Your task to perform on an android device: Show me the top rated dinnerware on Crate & Barrel Image 0: 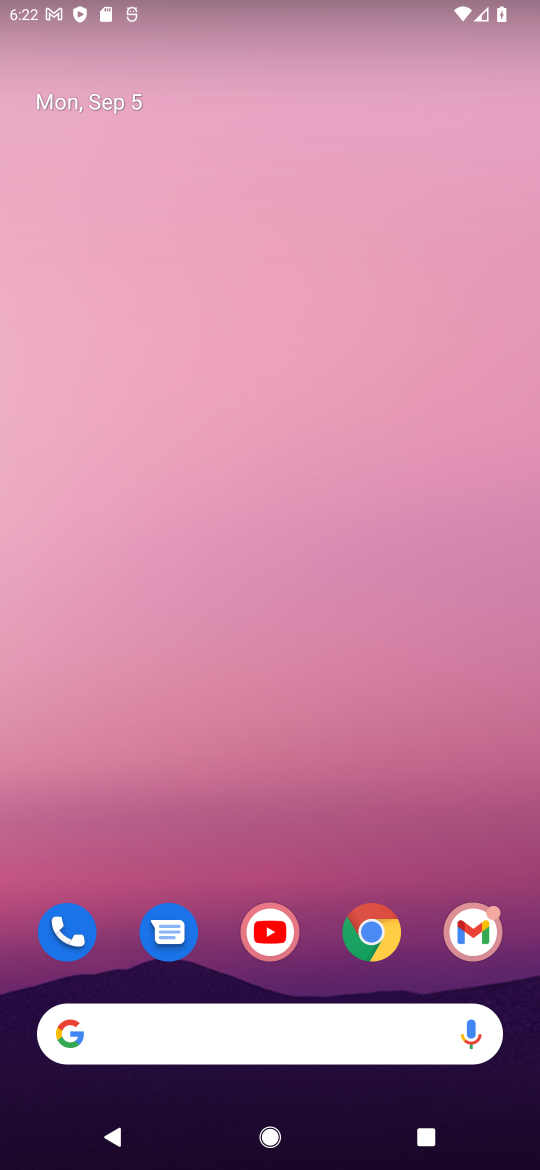
Step 0: drag from (276, 1004) to (253, 120)
Your task to perform on an android device: Show me the top rated dinnerware on Crate & Barrel Image 1: 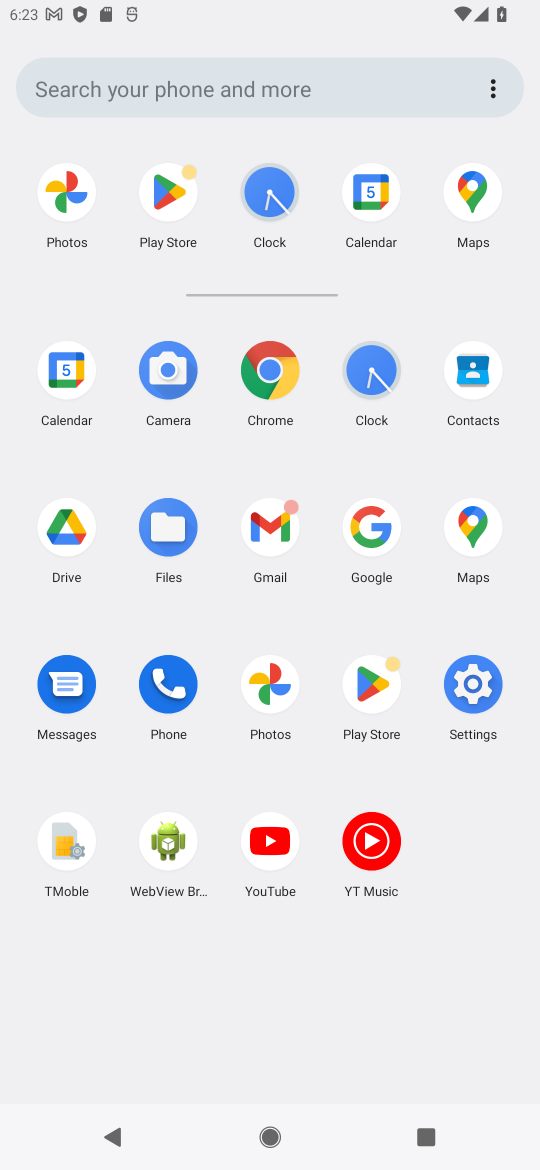
Step 1: click (373, 531)
Your task to perform on an android device: Show me the top rated dinnerware on Crate & Barrel Image 2: 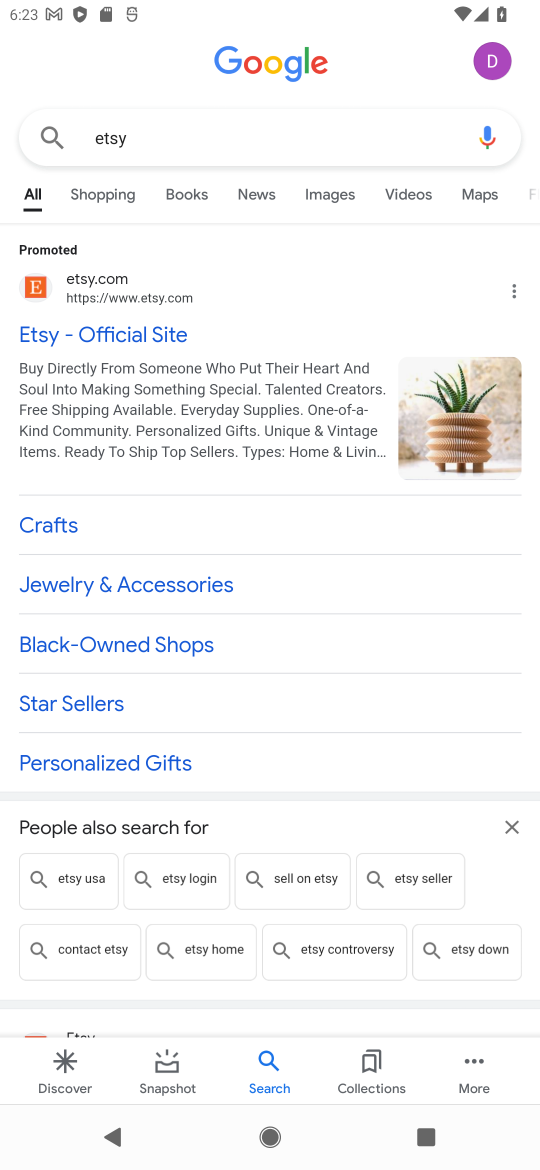
Step 2: click (210, 142)
Your task to perform on an android device: Show me the top rated dinnerware on Crate & Barrel Image 3: 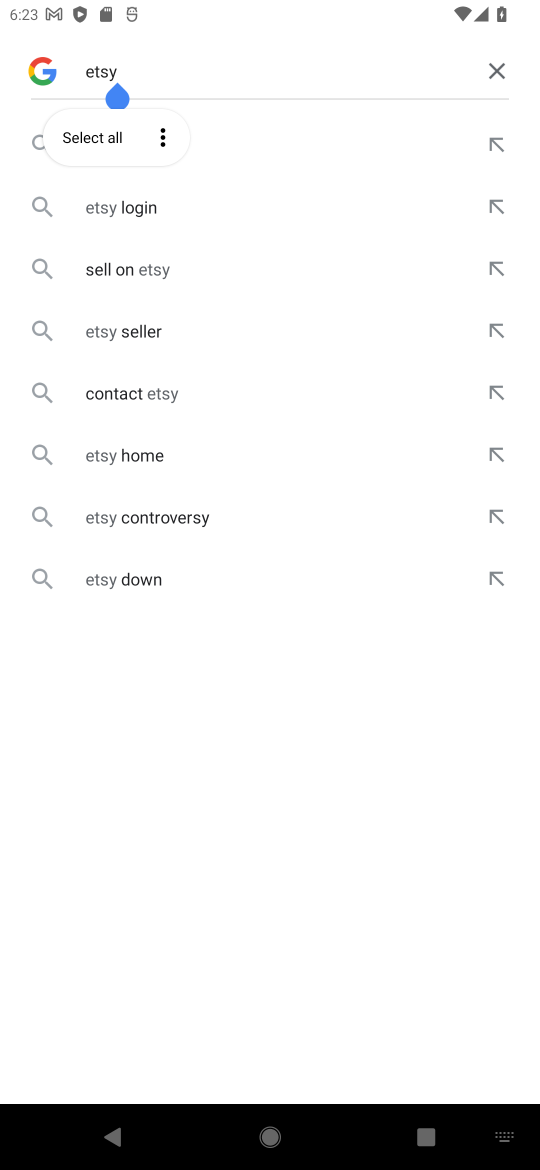
Step 3: click (499, 59)
Your task to perform on an android device: Show me the top rated dinnerware on Crate & Barrel Image 4: 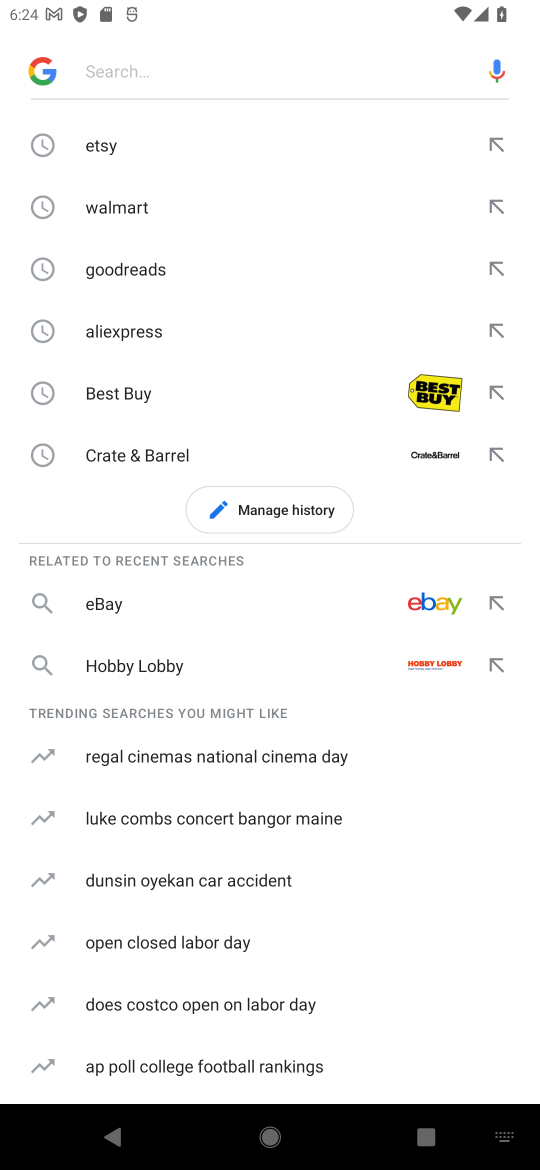
Step 4: type "Crate & Barrel"
Your task to perform on an android device: Show me the top rated dinnerware on Crate & Barrel Image 5: 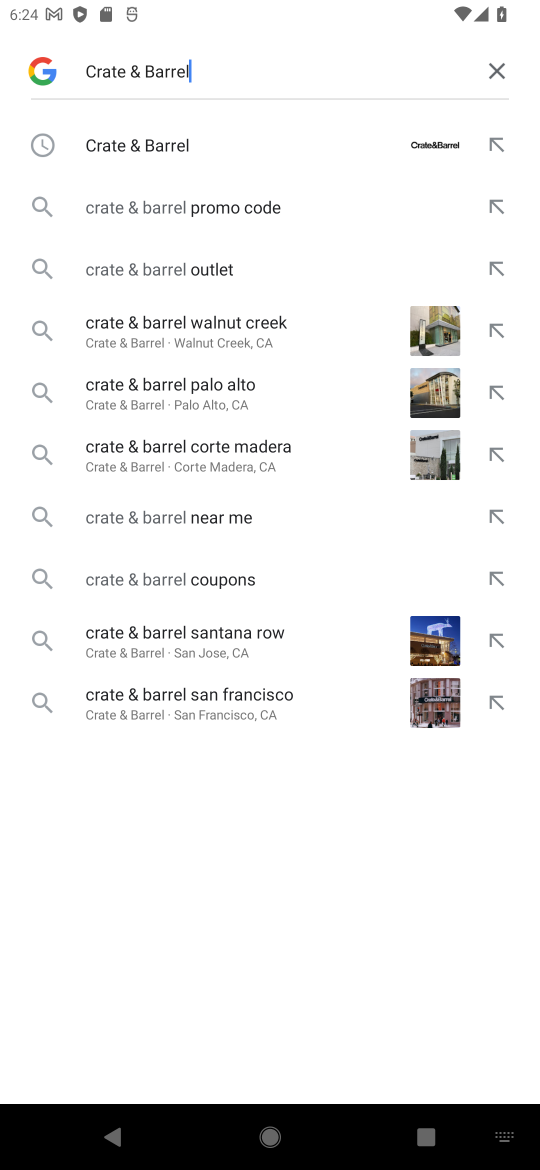
Step 5: click (145, 143)
Your task to perform on an android device: Show me the top rated dinnerware on Crate & Barrel Image 6: 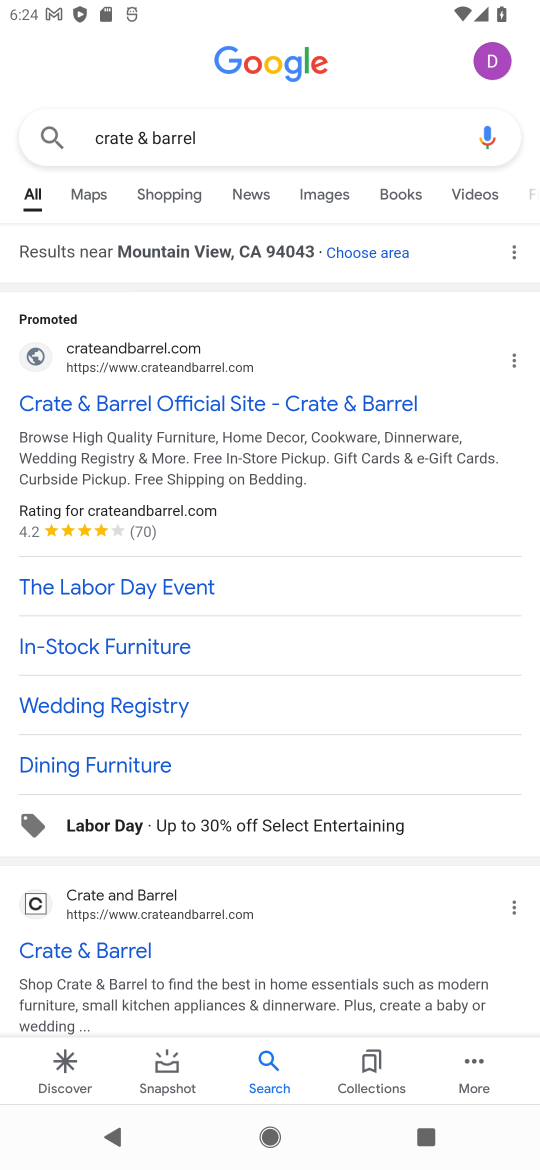
Step 6: click (76, 951)
Your task to perform on an android device: Show me the top rated dinnerware on Crate & Barrel Image 7: 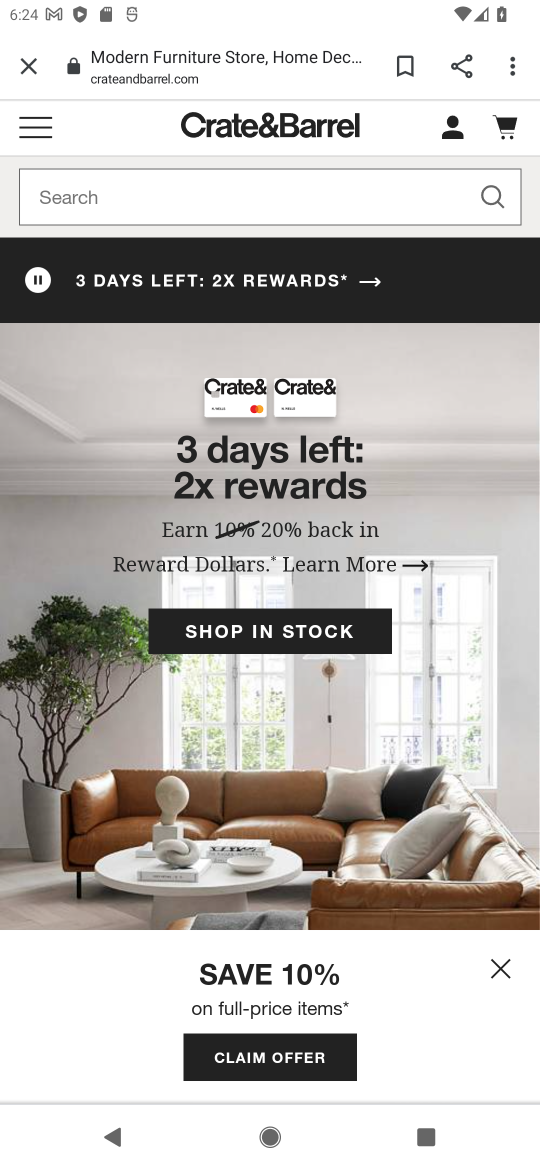
Step 7: click (512, 73)
Your task to perform on an android device: Show me the top rated dinnerware on Crate & Barrel Image 8: 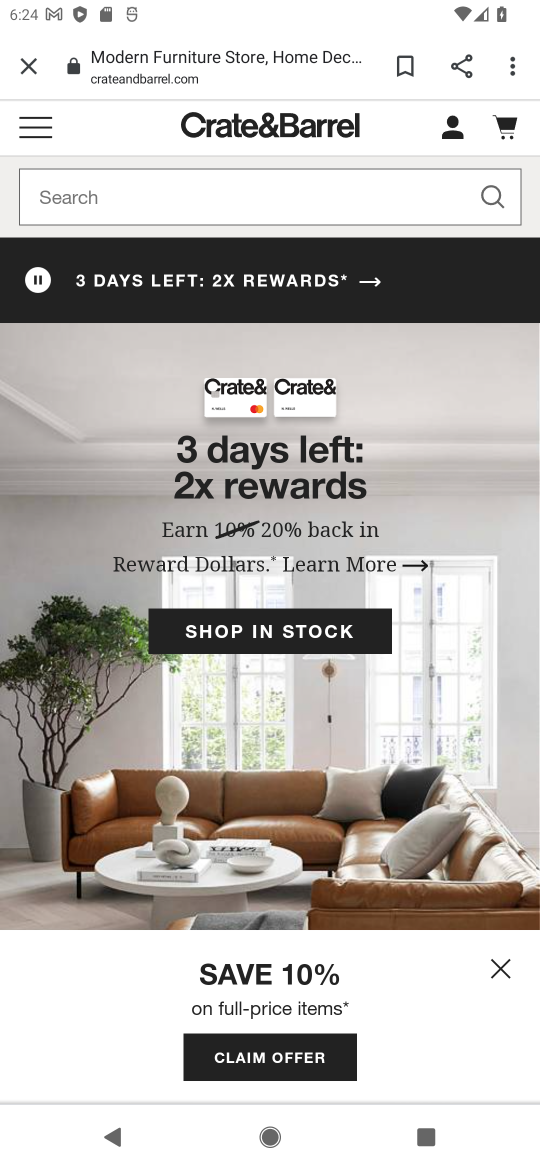
Step 8: click (183, 195)
Your task to perform on an android device: Show me the top rated dinnerware on Crate & Barrel Image 9: 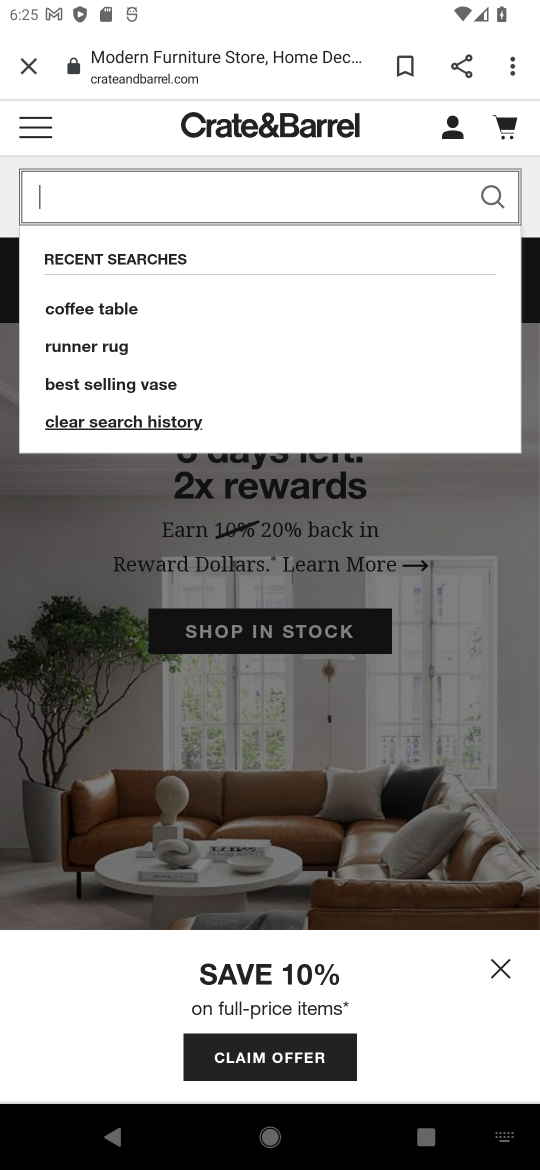
Step 9: click (191, 191)
Your task to perform on an android device: Show me the top rated dinnerware on Crate & Barrel Image 10: 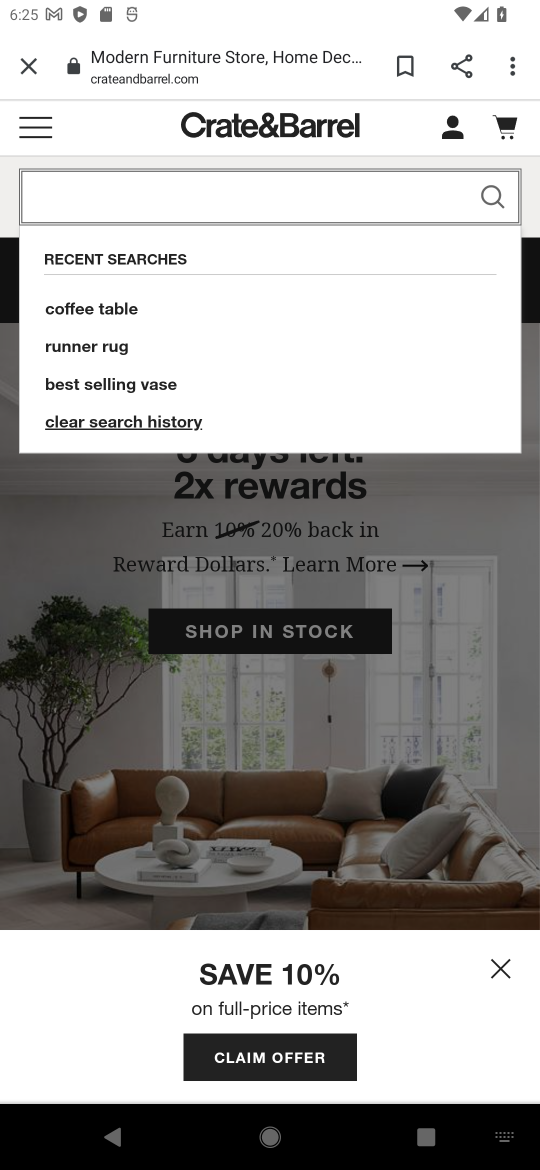
Step 10: type "dinnerware"
Your task to perform on an android device: Show me the top rated dinnerware on Crate & Barrel Image 11: 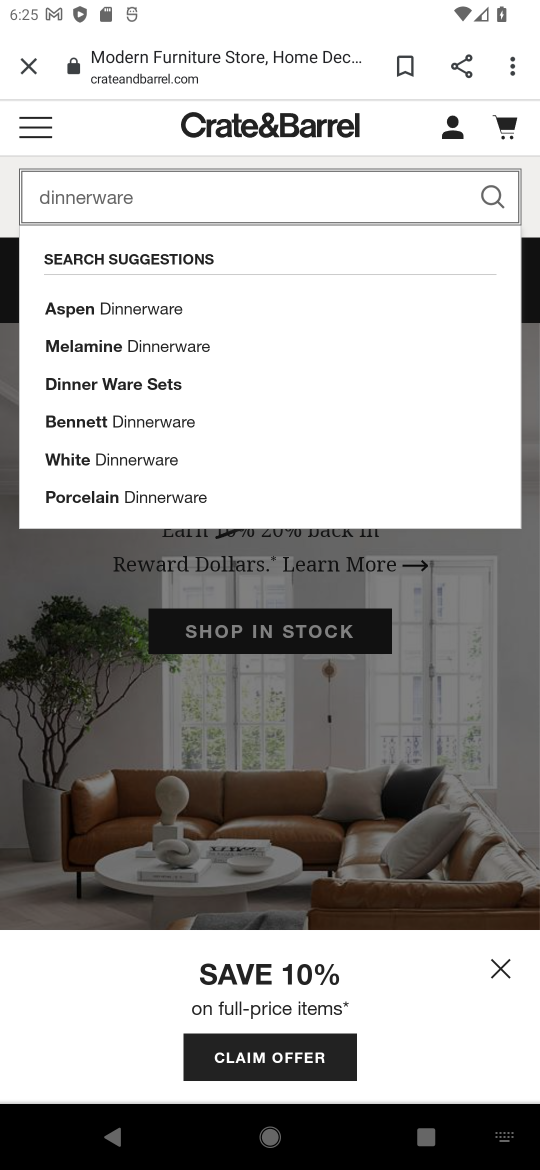
Step 11: click (490, 194)
Your task to perform on an android device: Show me the top rated dinnerware on Crate & Barrel Image 12: 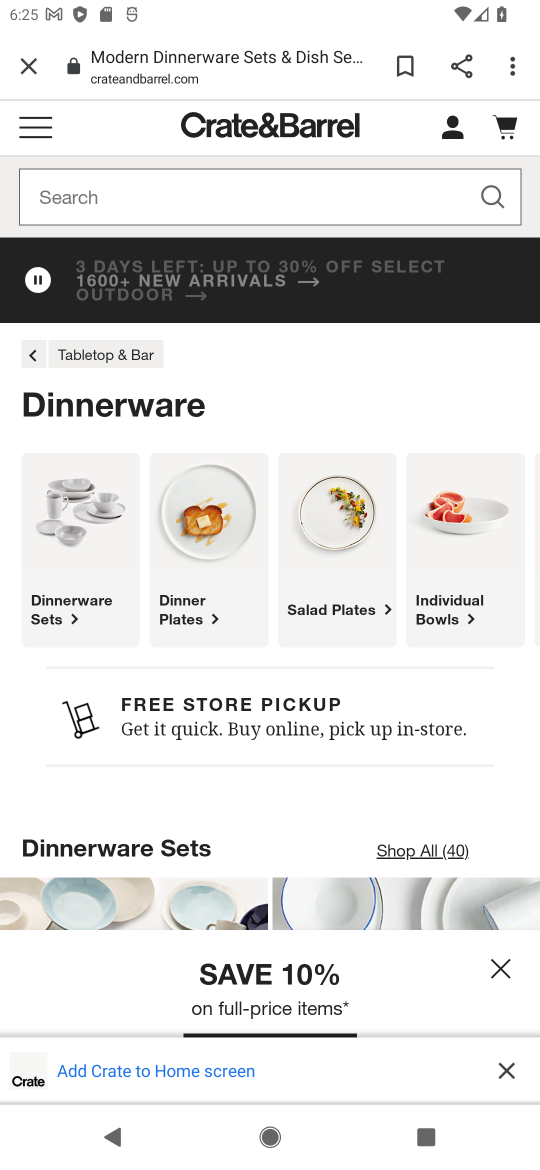
Step 12: task complete